Your task to perform on an android device: Open eBay Image 0: 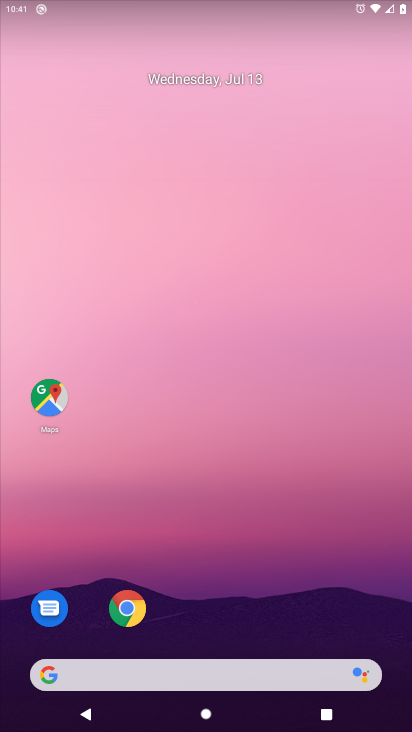
Step 0: click (99, 668)
Your task to perform on an android device: Open eBay Image 1: 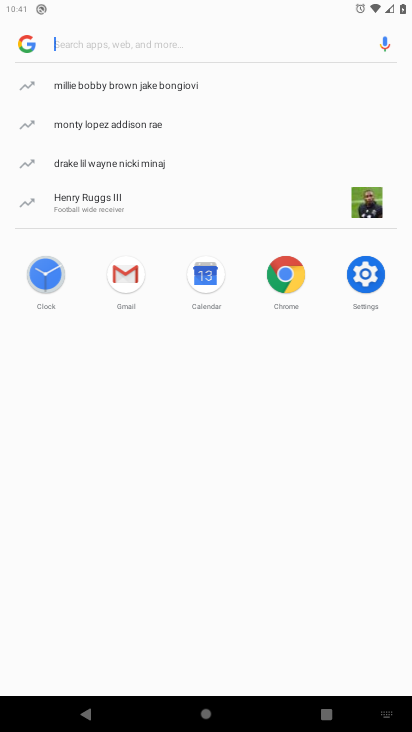
Step 1: type "eBay"
Your task to perform on an android device: Open eBay Image 2: 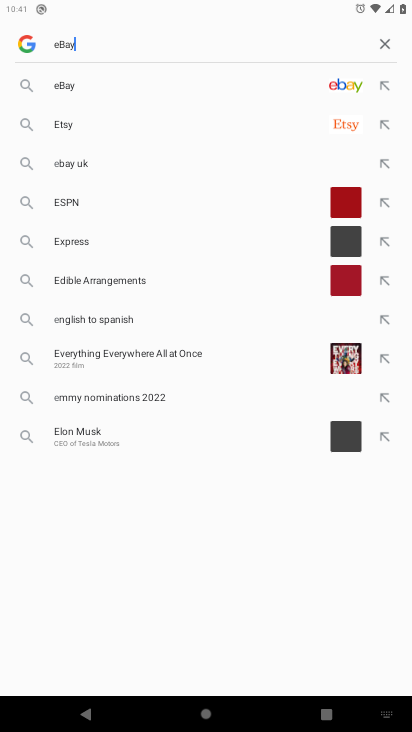
Step 2: type ""
Your task to perform on an android device: Open eBay Image 3: 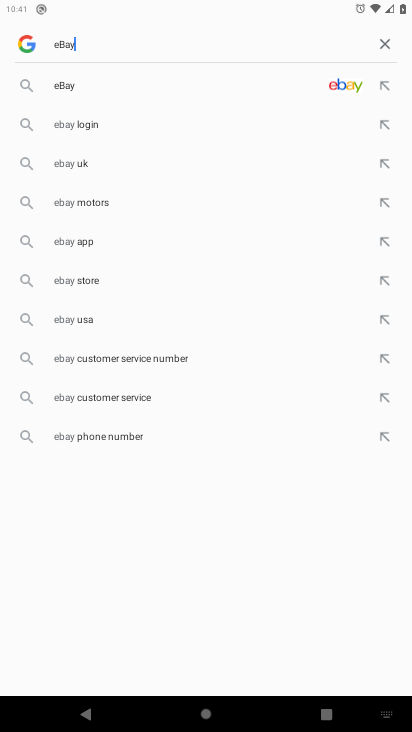
Step 3: click (62, 86)
Your task to perform on an android device: Open eBay Image 4: 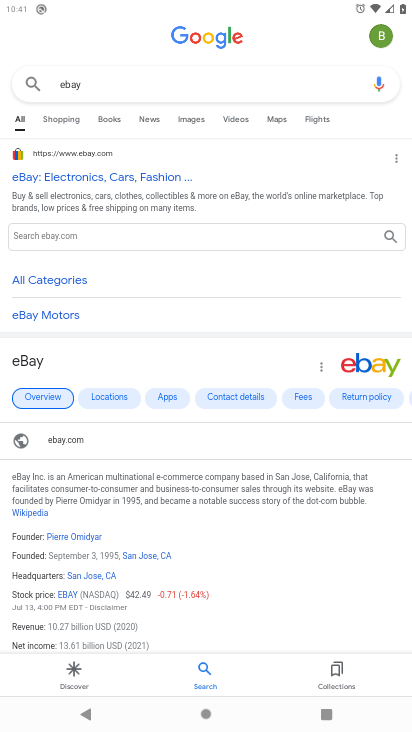
Step 4: task complete